Your task to perform on an android device: read, delete, or share a saved page in the chrome app Image 0: 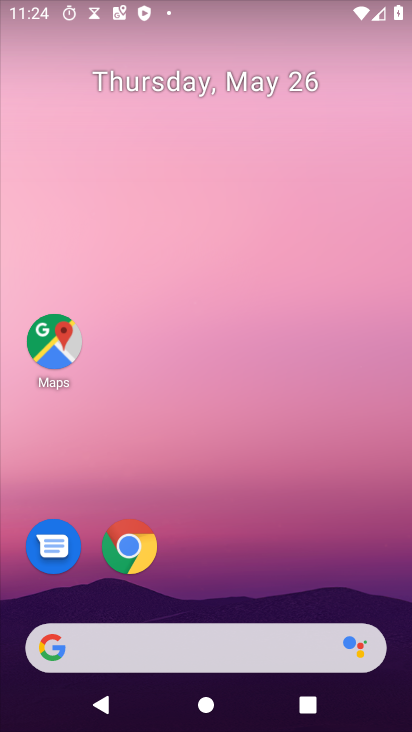
Step 0: drag from (367, 502) to (342, 168)
Your task to perform on an android device: read, delete, or share a saved page in the chrome app Image 1: 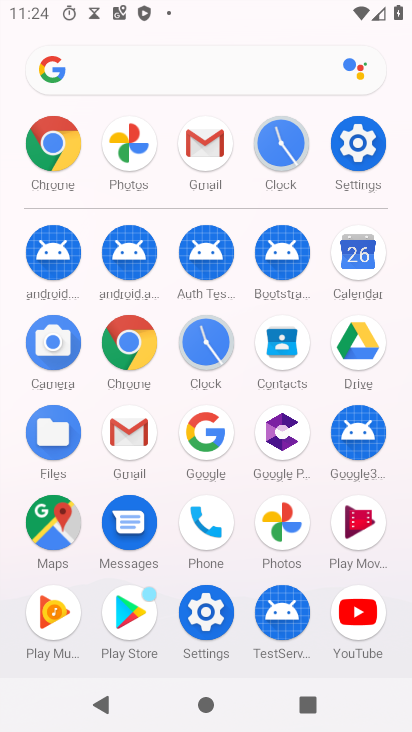
Step 1: click (148, 358)
Your task to perform on an android device: read, delete, or share a saved page in the chrome app Image 2: 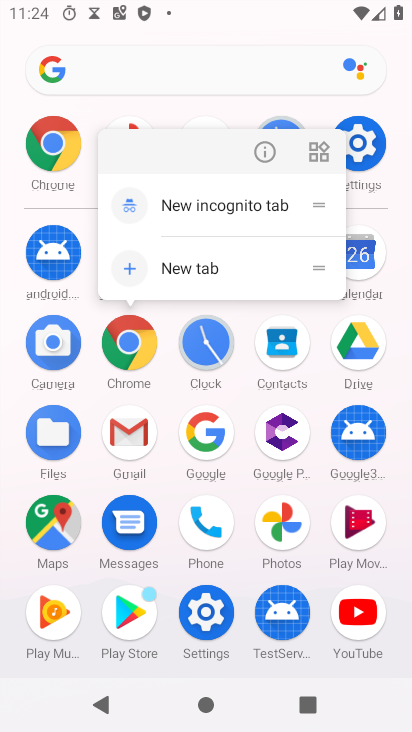
Step 2: click (145, 358)
Your task to perform on an android device: read, delete, or share a saved page in the chrome app Image 3: 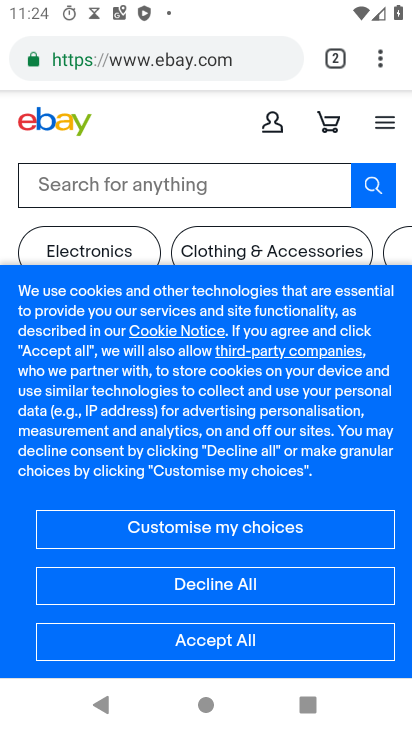
Step 3: drag from (378, 63) to (239, 97)
Your task to perform on an android device: read, delete, or share a saved page in the chrome app Image 4: 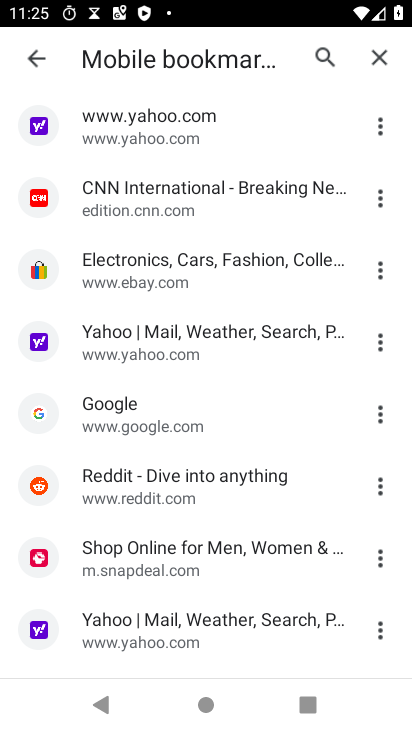
Step 4: click (382, 132)
Your task to perform on an android device: read, delete, or share a saved page in the chrome app Image 5: 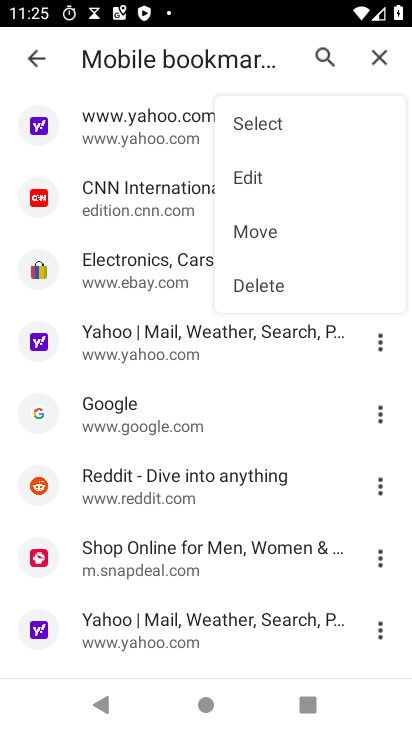
Step 5: click (259, 289)
Your task to perform on an android device: read, delete, or share a saved page in the chrome app Image 6: 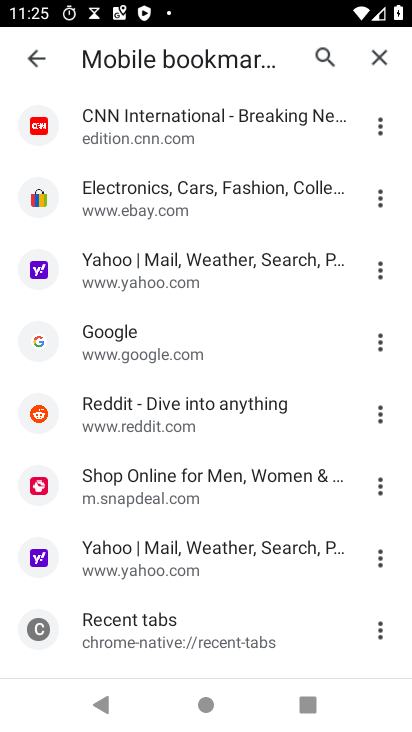
Step 6: task complete